Your task to perform on an android device: clear all cookies in the chrome app Image 0: 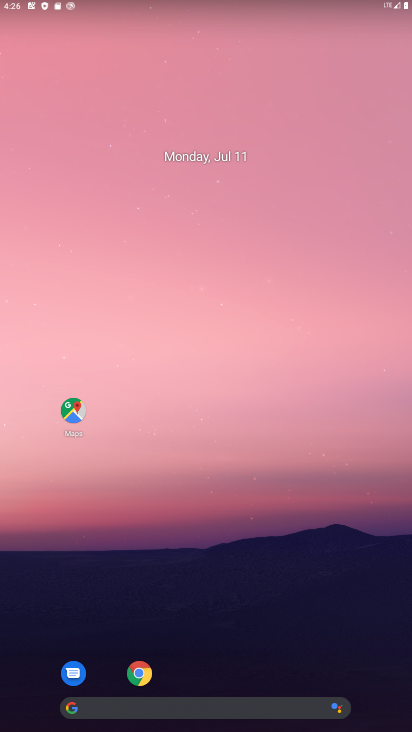
Step 0: click (139, 677)
Your task to perform on an android device: clear all cookies in the chrome app Image 1: 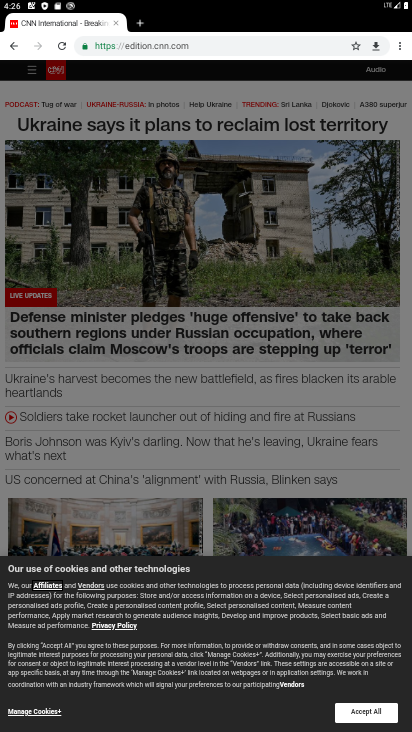
Step 1: click (405, 44)
Your task to perform on an android device: clear all cookies in the chrome app Image 2: 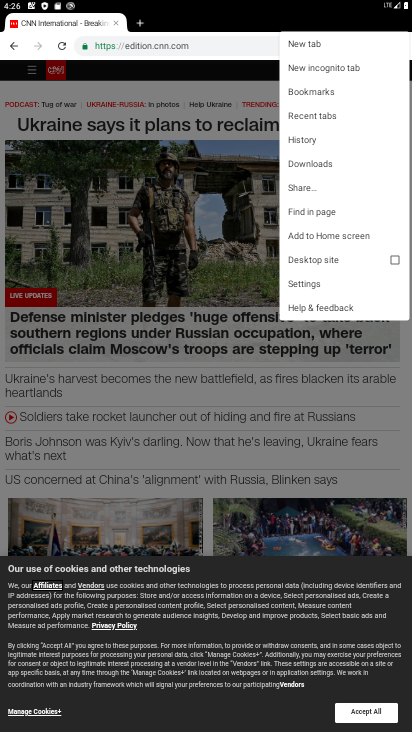
Step 2: click (306, 280)
Your task to perform on an android device: clear all cookies in the chrome app Image 3: 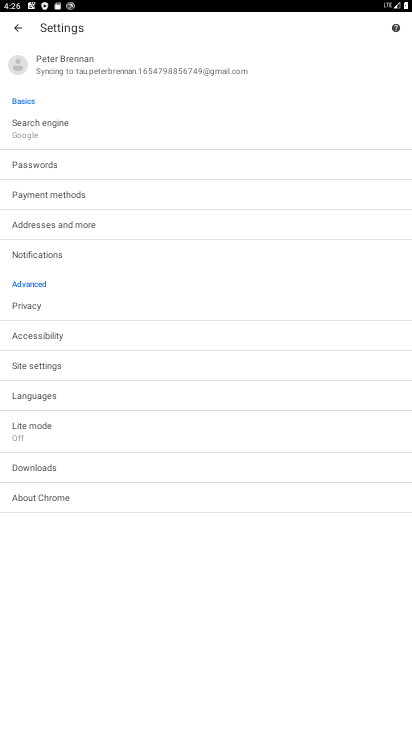
Step 3: click (33, 308)
Your task to perform on an android device: clear all cookies in the chrome app Image 4: 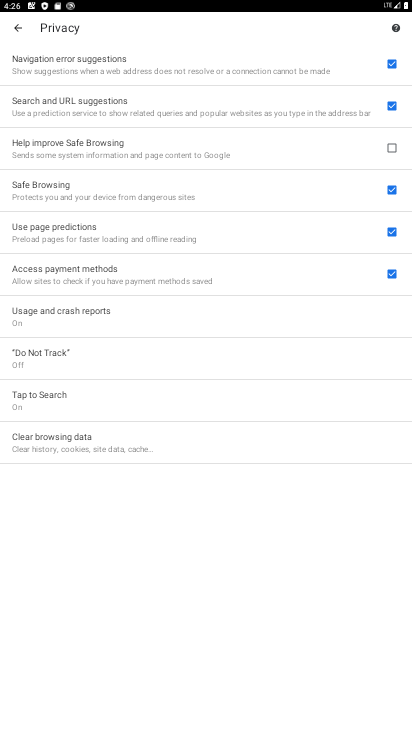
Step 4: click (112, 450)
Your task to perform on an android device: clear all cookies in the chrome app Image 5: 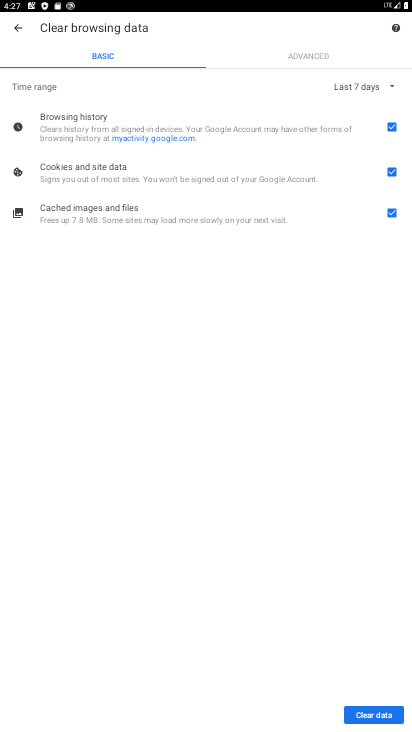
Step 5: click (398, 123)
Your task to perform on an android device: clear all cookies in the chrome app Image 6: 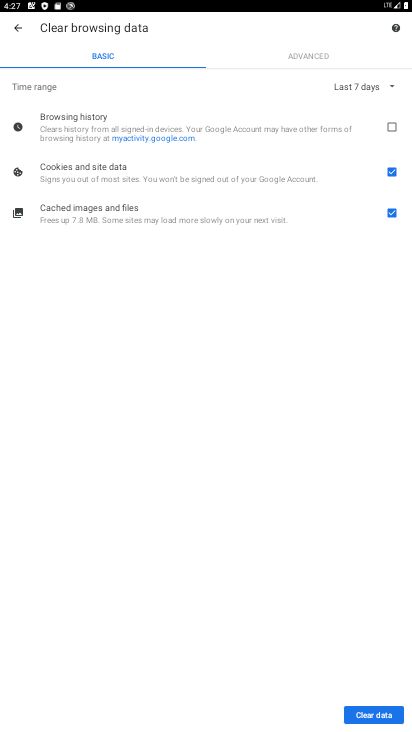
Step 6: click (390, 205)
Your task to perform on an android device: clear all cookies in the chrome app Image 7: 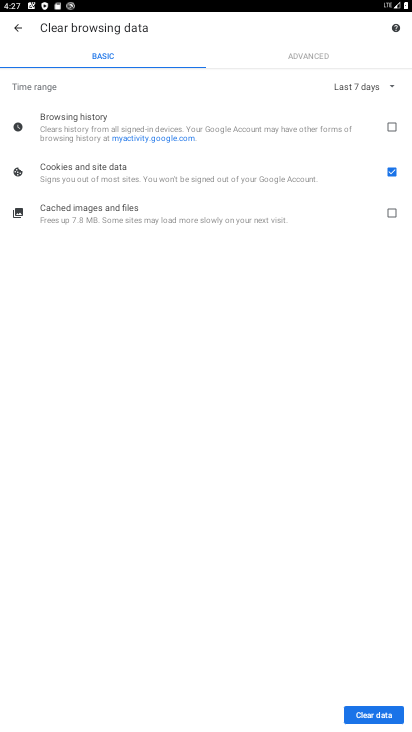
Step 7: click (388, 89)
Your task to perform on an android device: clear all cookies in the chrome app Image 8: 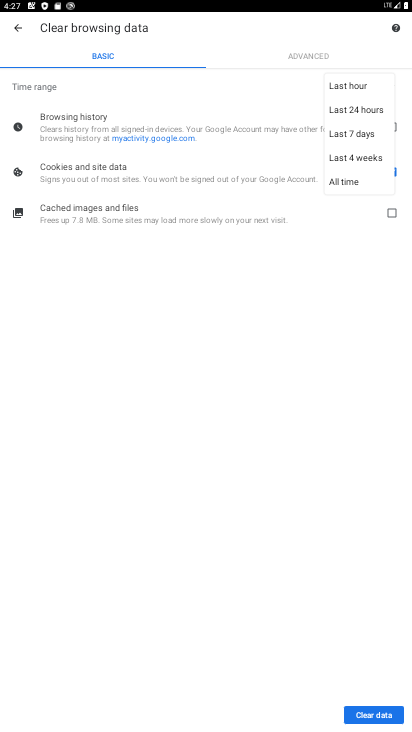
Step 8: click (359, 179)
Your task to perform on an android device: clear all cookies in the chrome app Image 9: 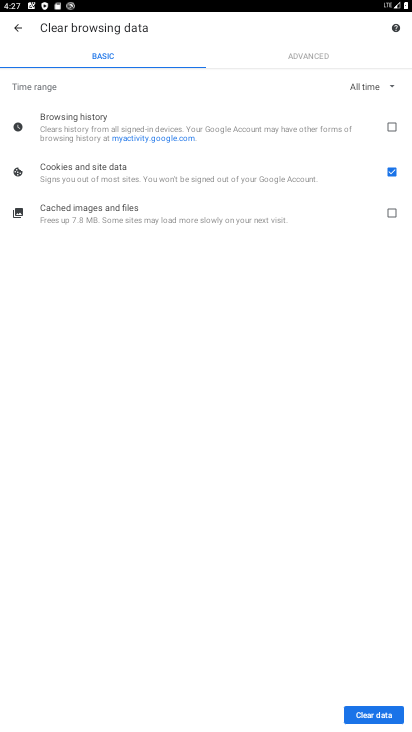
Step 9: click (381, 715)
Your task to perform on an android device: clear all cookies in the chrome app Image 10: 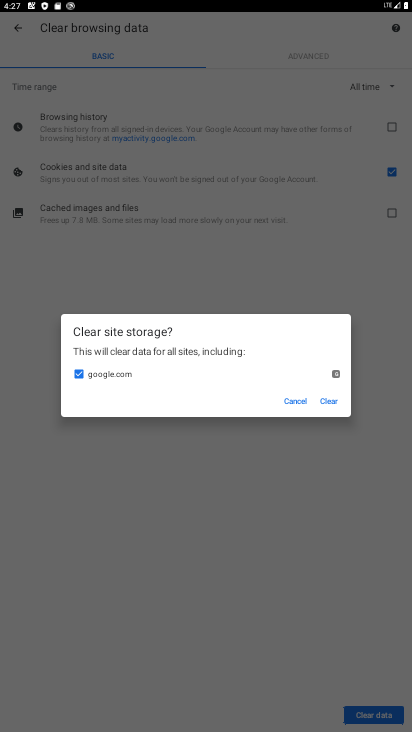
Step 10: click (336, 389)
Your task to perform on an android device: clear all cookies in the chrome app Image 11: 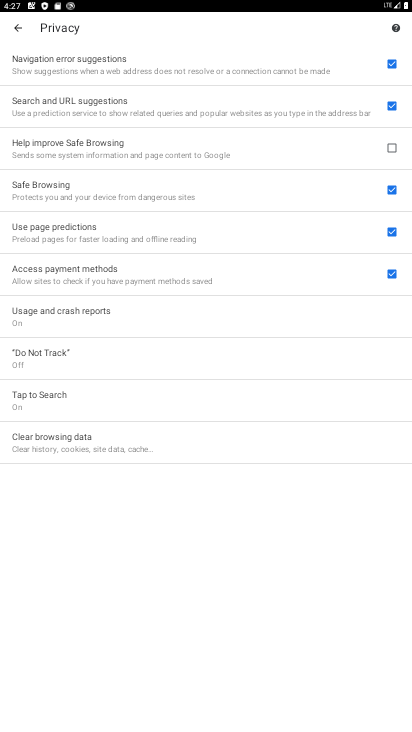
Step 11: task complete